Your task to perform on an android device: Open Maps and search for coffee Image 0: 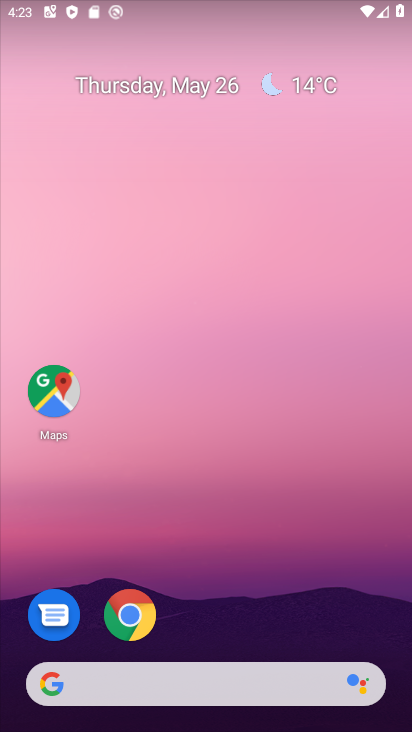
Step 0: click (60, 397)
Your task to perform on an android device: Open Maps and search for coffee Image 1: 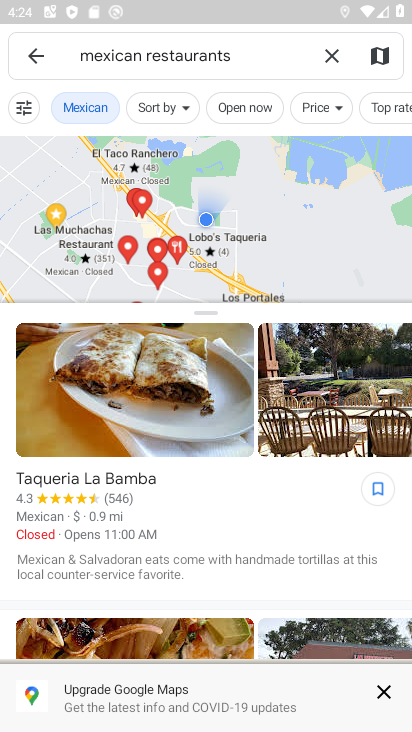
Step 1: click (333, 57)
Your task to perform on an android device: Open Maps and search for coffee Image 2: 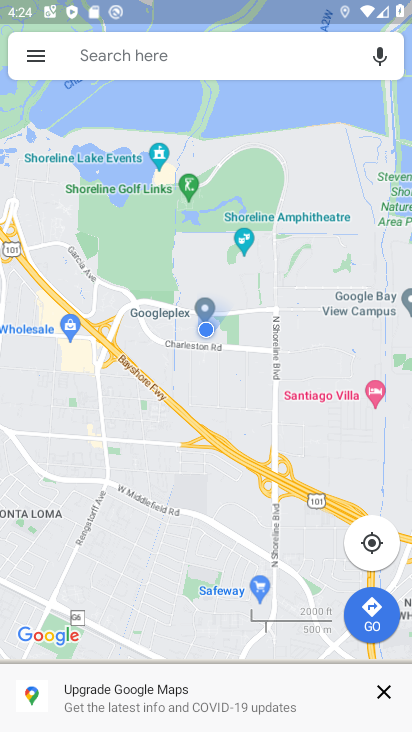
Step 2: click (255, 58)
Your task to perform on an android device: Open Maps and search for coffee Image 3: 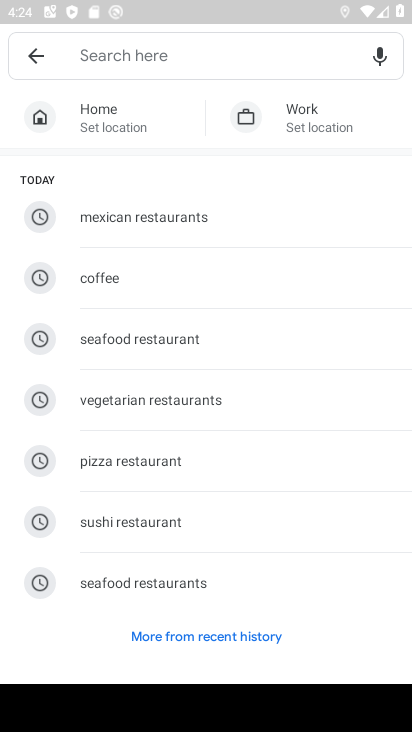
Step 3: click (164, 276)
Your task to perform on an android device: Open Maps and search for coffee Image 4: 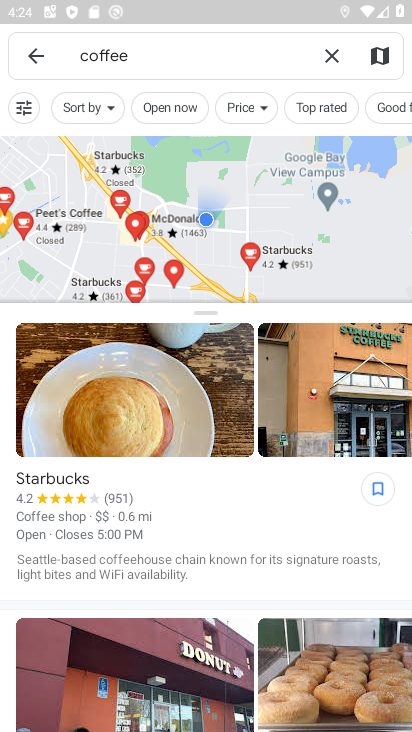
Step 4: task complete